Your task to perform on an android device: delete location history Image 0: 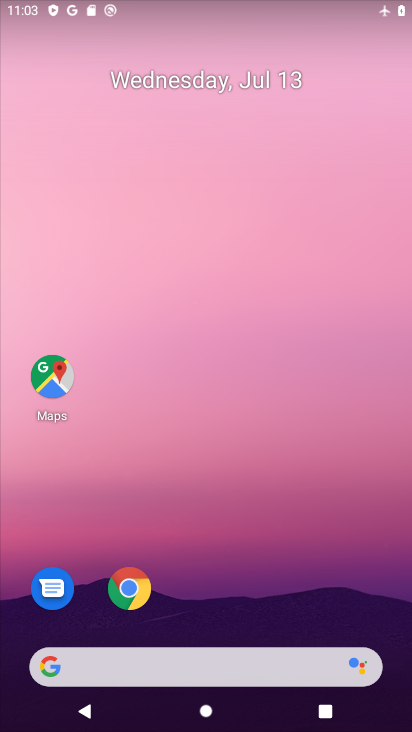
Step 0: drag from (221, 577) to (200, 70)
Your task to perform on an android device: delete location history Image 1: 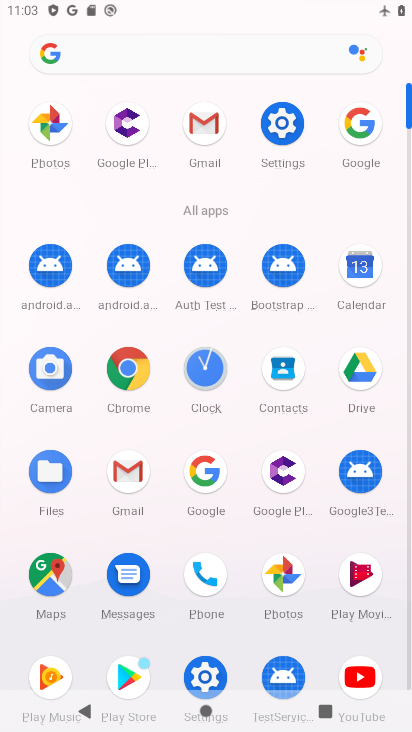
Step 1: click (286, 127)
Your task to perform on an android device: delete location history Image 2: 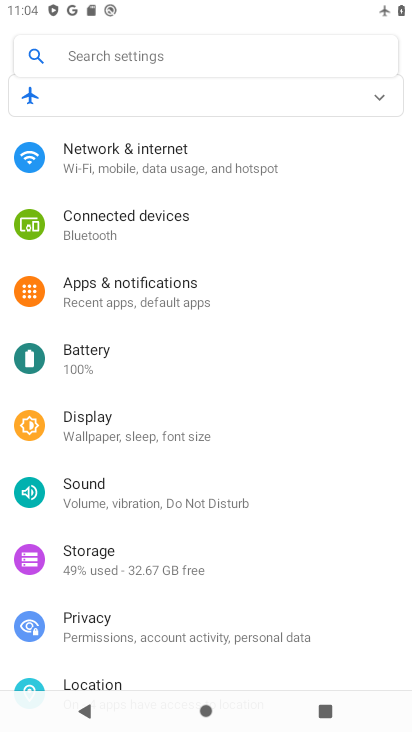
Step 2: drag from (181, 618) to (212, 281)
Your task to perform on an android device: delete location history Image 3: 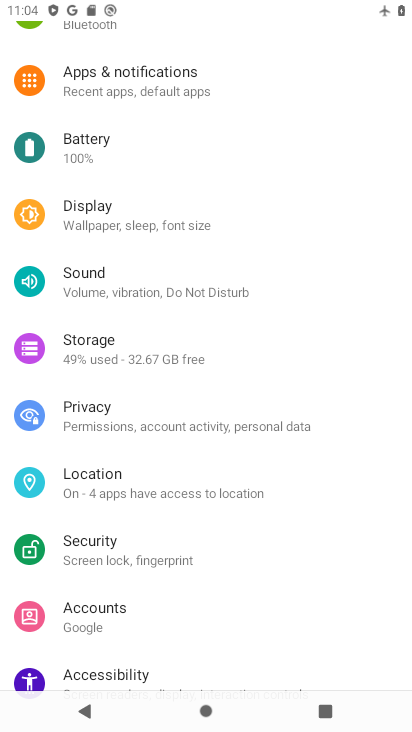
Step 3: click (131, 474)
Your task to perform on an android device: delete location history Image 4: 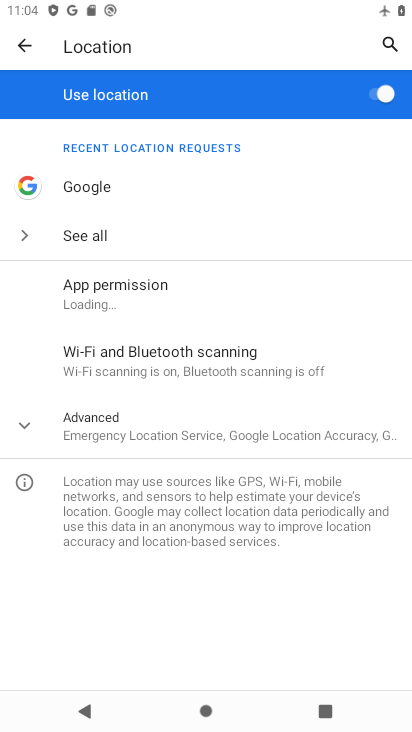
Step 4: click (80, 414)
Your task to perform on an android device: delete location history Image 5: 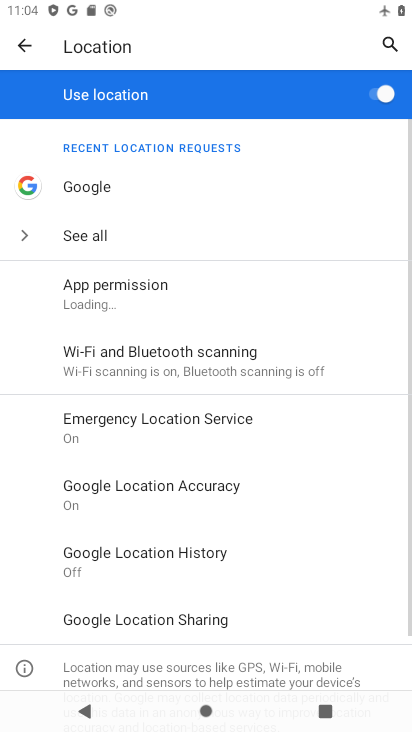
Step 5: click (165, 563)
Your task to perform on an android device: delete location history Image 6: 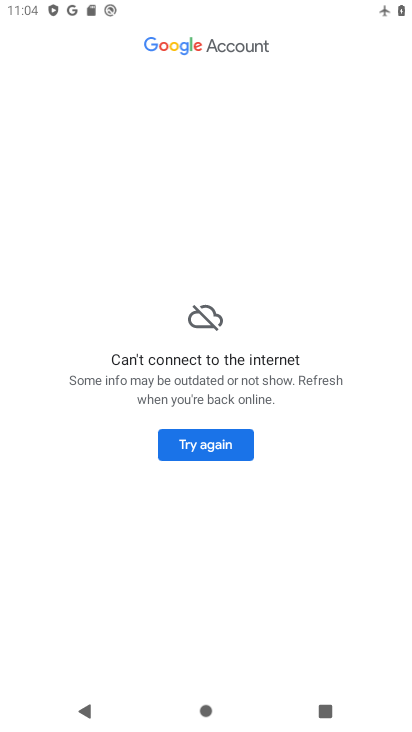
Step 6: task complete